Your task to perform on an android device: change alarm snooze length Image 0: 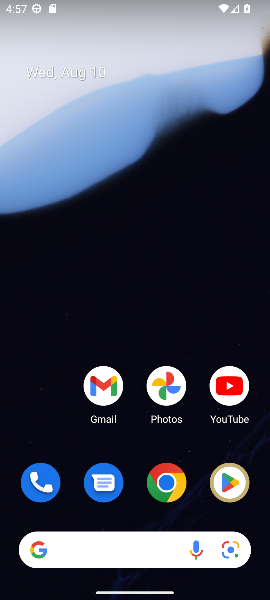
Step 0: drag from (45, 420) to (143, 11)
Your task to perform on an android device: change alarm snooze length Image 1: 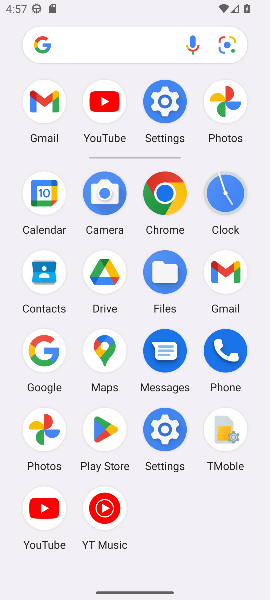
Step 1: click (227, 197)
Your task to perform on an android device: change alarm snooze length Image 2: 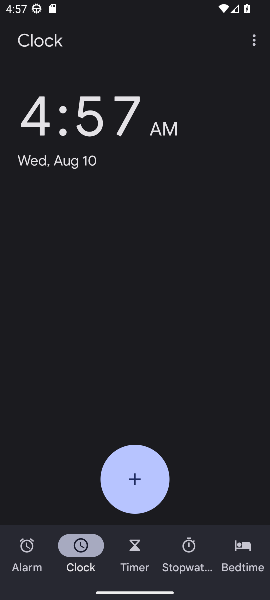
Step 2: click (254, 44)
Your task to perform on an android device: change alarm snooze length Image 3: 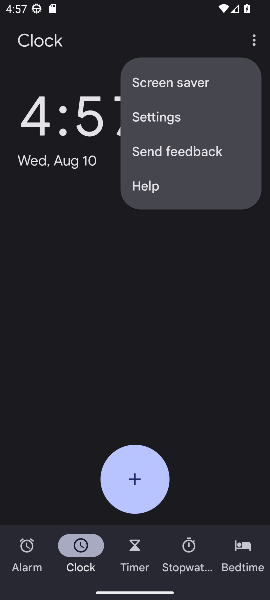
Step 3: click (183, 114)
Your task to perform on an android device: change alarm snooze length Image 4: 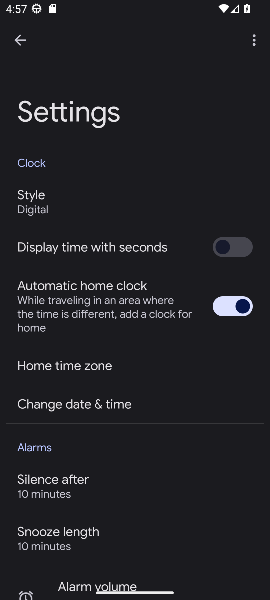
Step 4: drag from (119, 478) to (138, 251)
Your task to perform on an android device: change alarm snooze length Image 5: 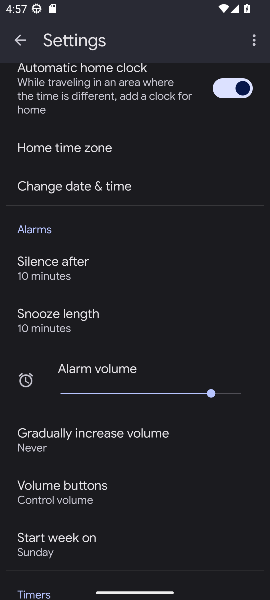
Step 5: click (85, 317)
Your task to perform on an android device: change alarm snooze length Image 6: 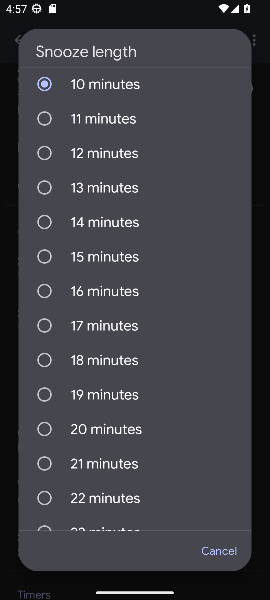
Step 6: click (51, 116)
Your task to perform on an android device: change alarm snooze length Image 7: 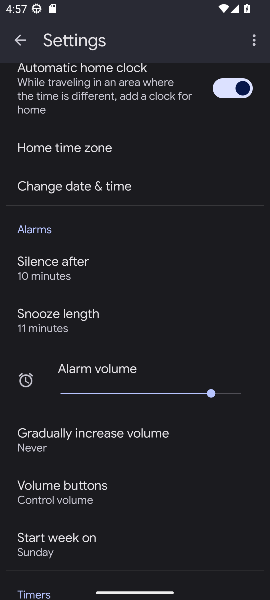
Step 7: task complete